Your task to perform on an android device: move an email to a new category in the gmail app Image 0: 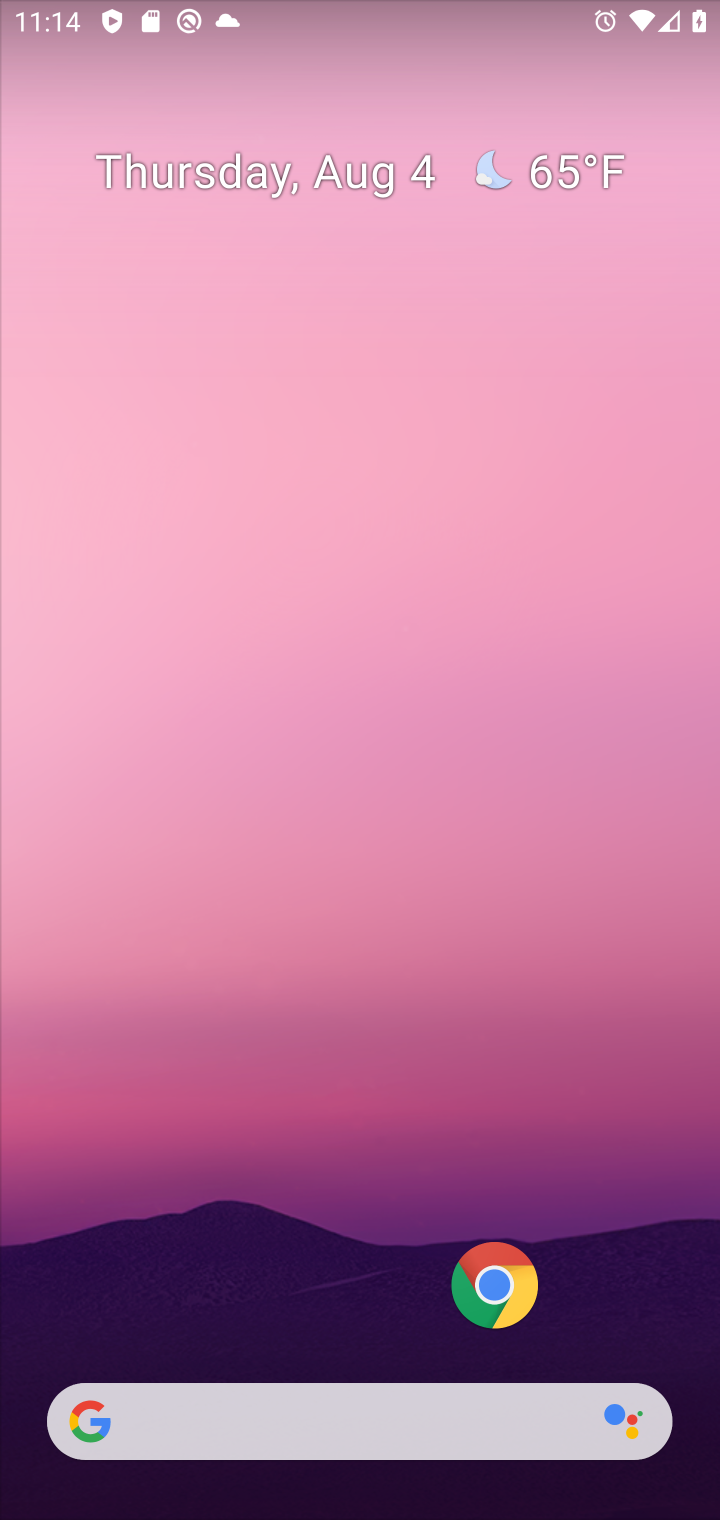
Step 0: press home button
Your task to perform on an android device: move an email to a new category in the gmail app Image 1: 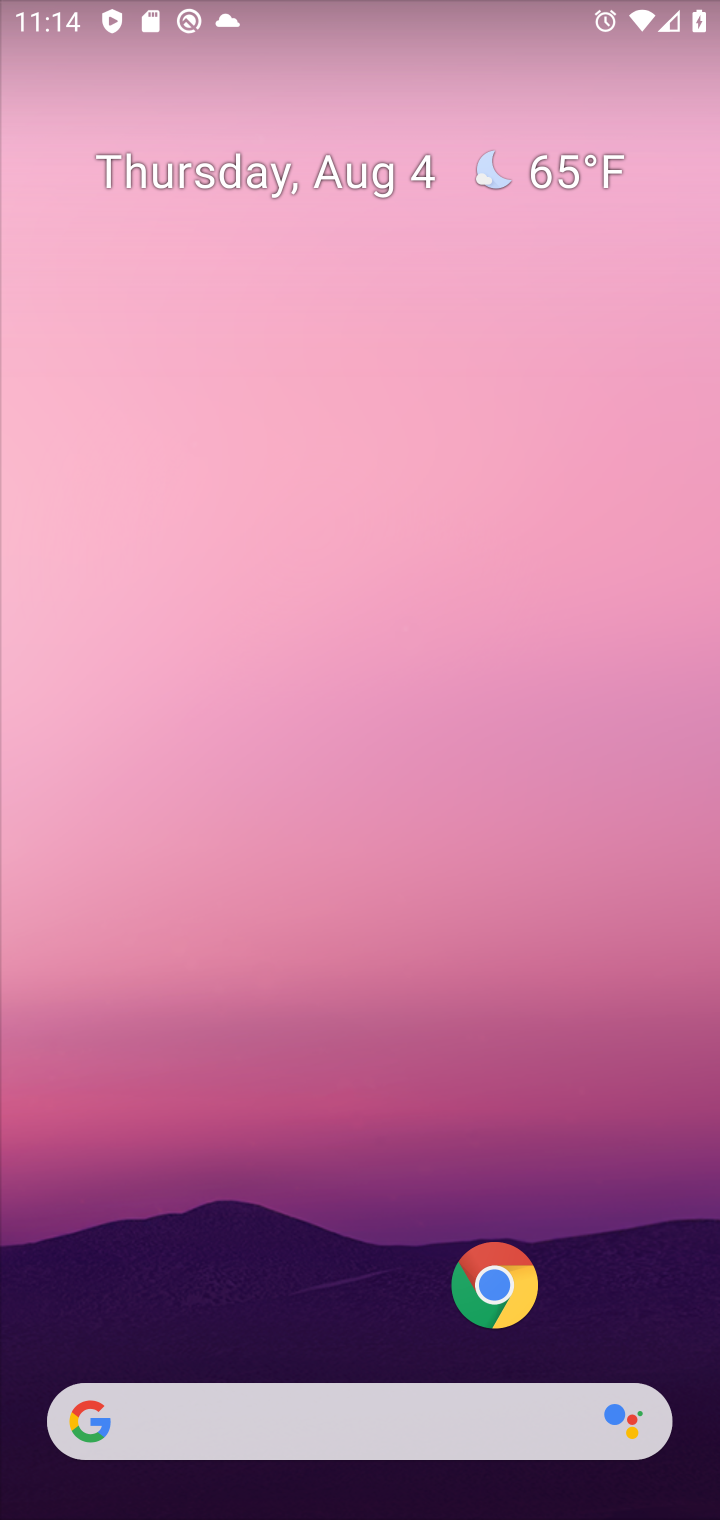
Step 1: drag from (356, 1229) to (302, 477)
Your task to perform on an android device: move an email to a new category in the gmail app Image 2: 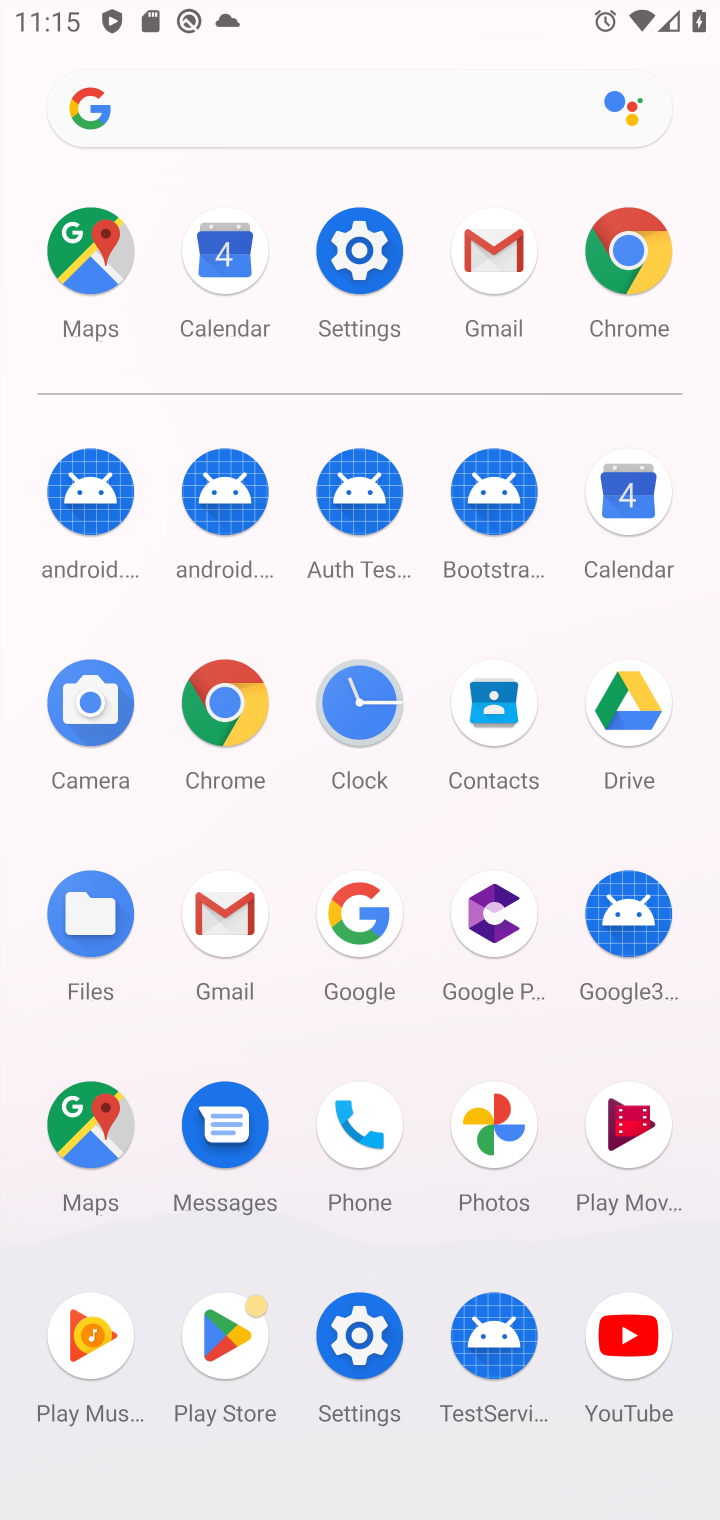
Step 2: click (492, 262)
Your task to perform on an android device: move an email to a new category in the gmail app Image 3: 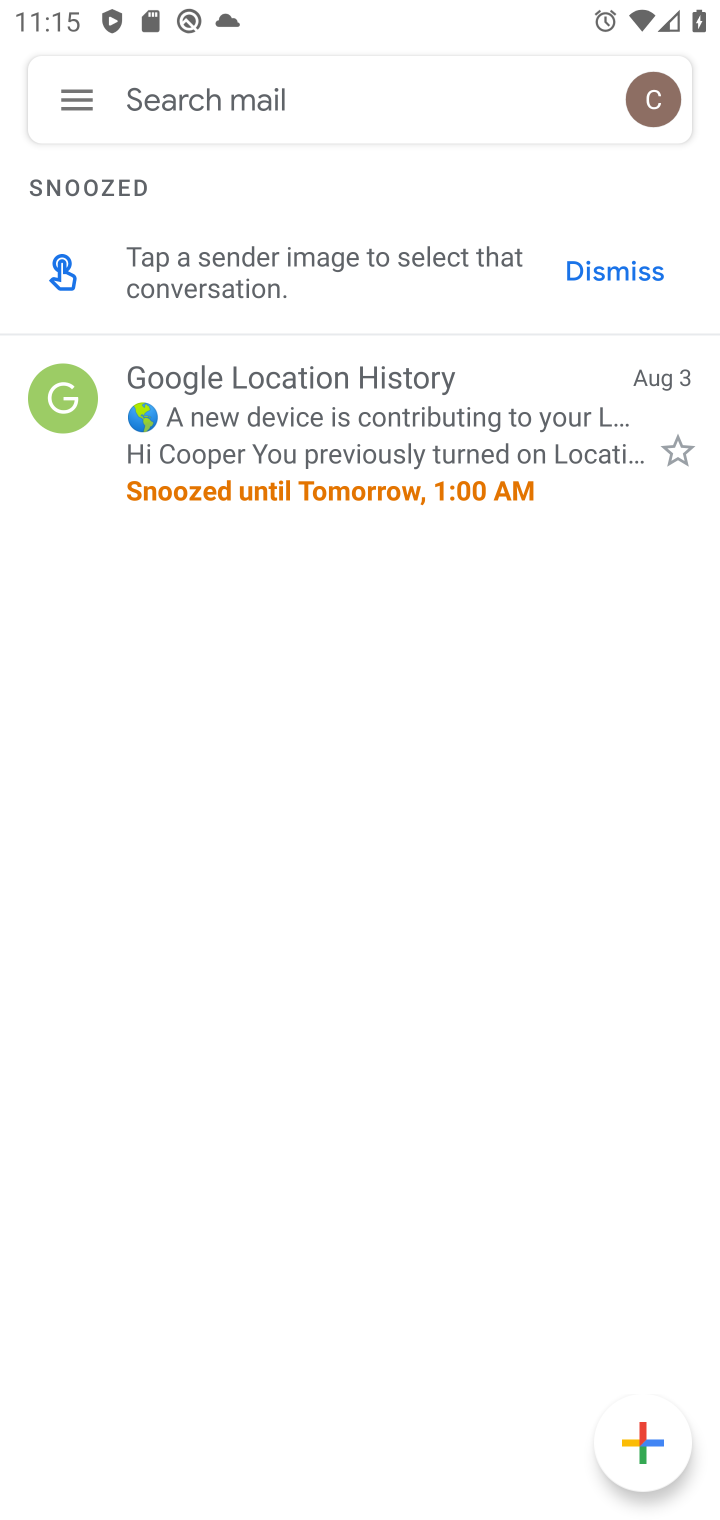
Step 3: task complete